Your task to perform on an android device: move a message to another label in the gmail app Image 0: 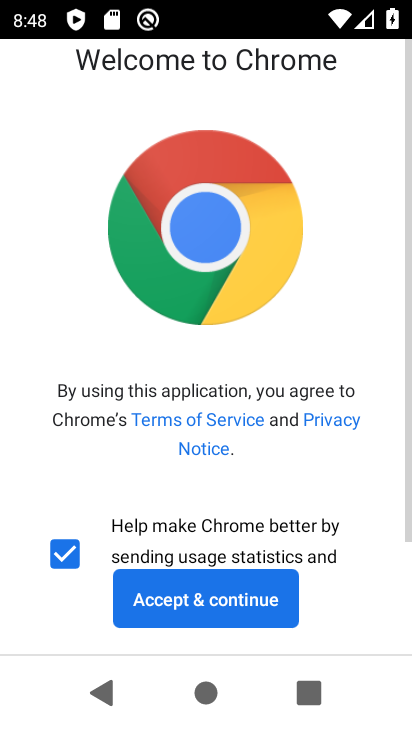
Step 0: press home button
Your task to perform on an android device: move a message to another label in the gmail app Image 1: 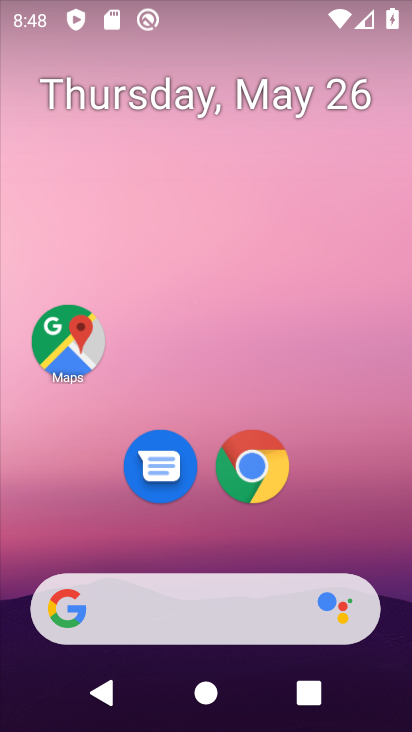
Step 1: drag from (334, 498) to (202, 41)
Your task to perform on an android device: move a message to another label in the gmail app Image 2: 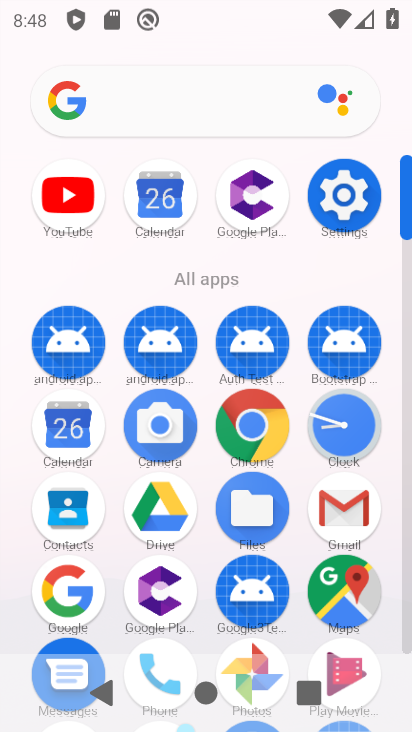
Step 2: click (347, 514)
Your task to perform on an android device: move a message to another label in the gmail app Image 3: 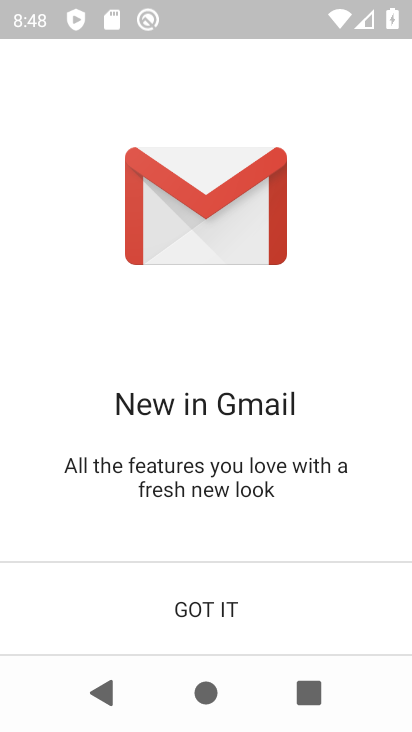
Step 3: click (207, 610)
Your task to perform on an android device: move a message to another label in the gmail app Image 4: 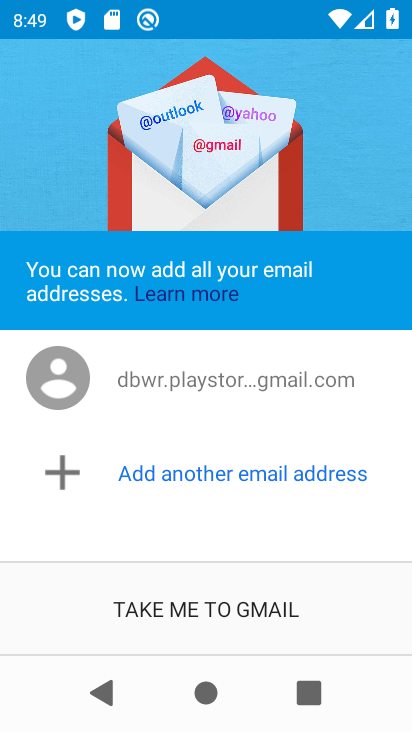
Step 4: click (207, 610)
Your task to perform on an android device: move a message to another label in the gmail app Image 5: 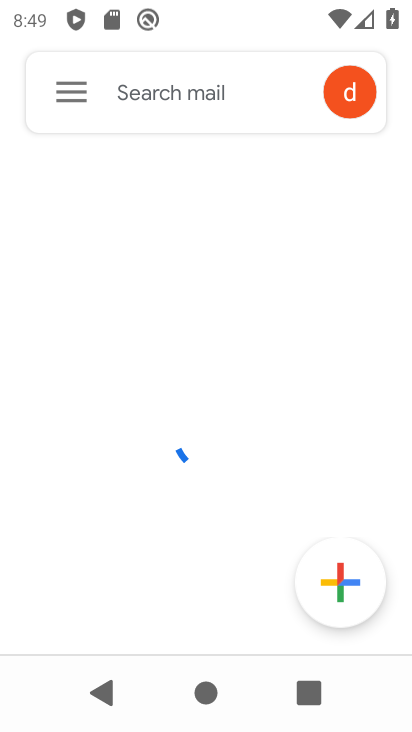
Step 5: task complete